Your task to perform on an android device: Is it going to rain this weekend? Image 0: 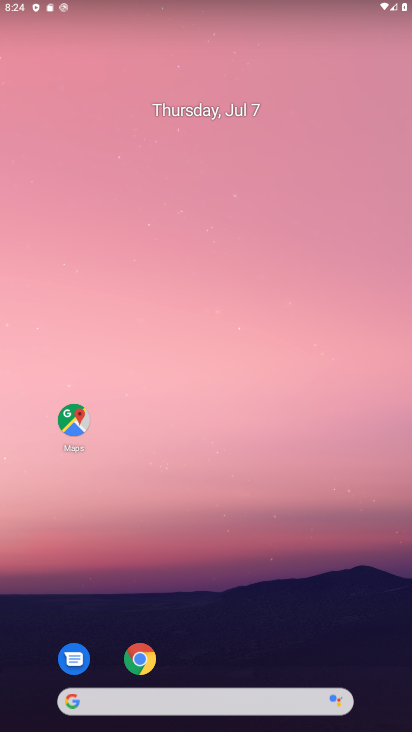
Step 0: click (207, 700)
Your task to perform on an android device: Is it going to rain this weekend? Image 1: 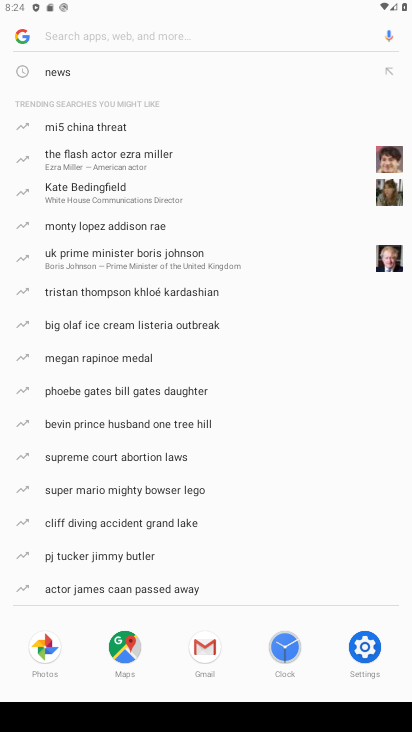
Step 1: type "weather"
Your task to perform on an android device: Is it going to rain this weekend? Image 2: 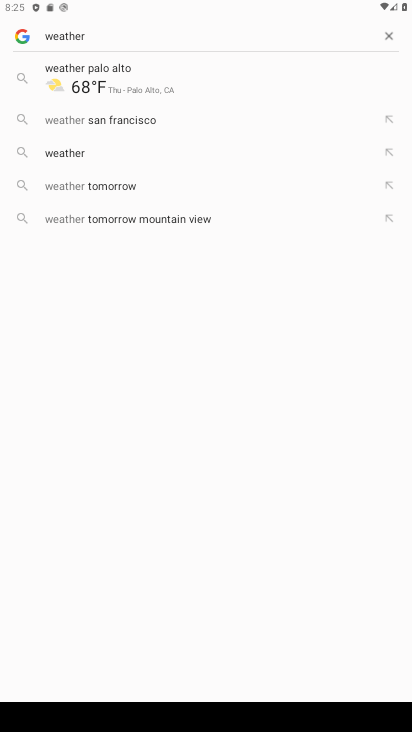
Step 2: click (97, 154)
Your task to perform on an android device: Is it going to rain this weekend? Image 3: 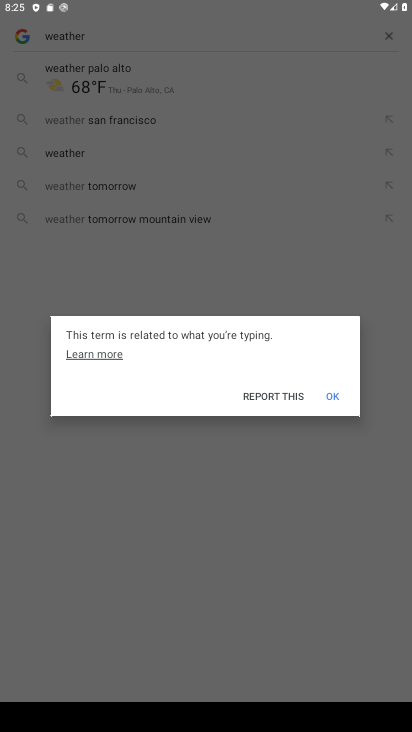
Step 3: click (332, 395)
Your task to perform on an android device: Is it going to rain this weekend? Image 4: 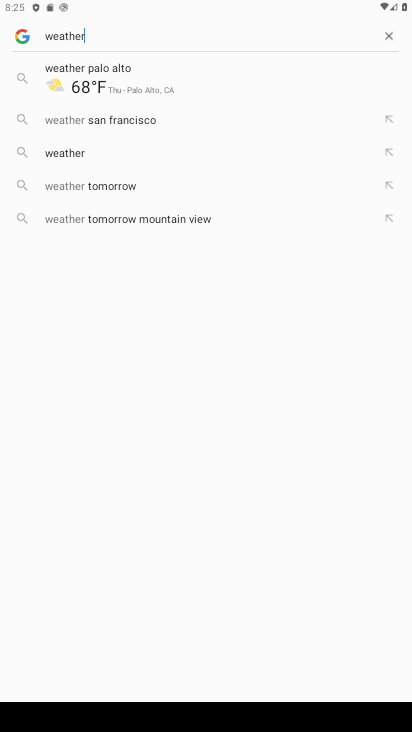
Step 4: click (94, 152)
Your task to perform on an android device: Is it going to rain this weekend? Image 5: 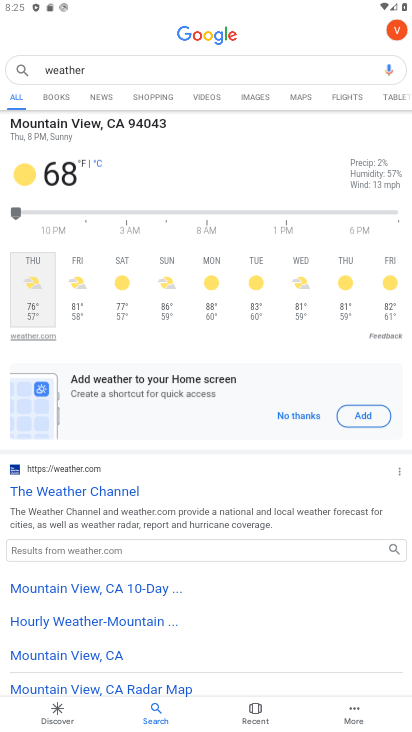
Step 5: task complete